Your task to perform on an android device: check battery use Image 0: 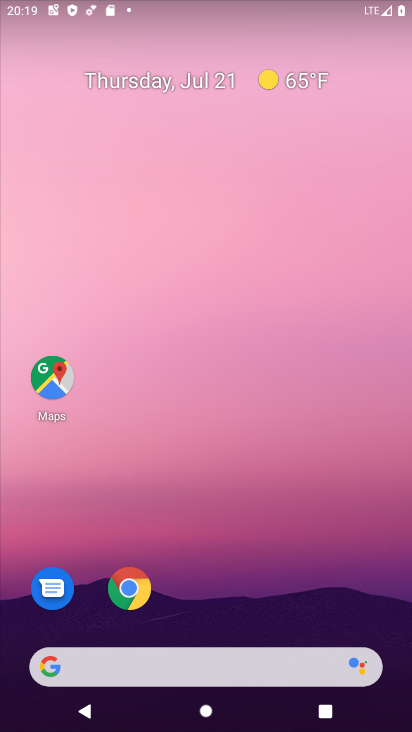
Step 0: drag from (257, 616) to (174, 86)
Your task to perform on an android device: check battery use Image 1: 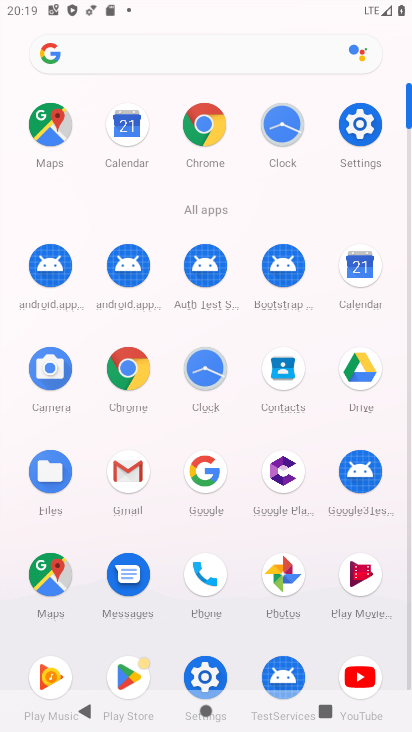
Step 1: click (360, 129)
Your task to perform on an android device: check battery use Image 2: 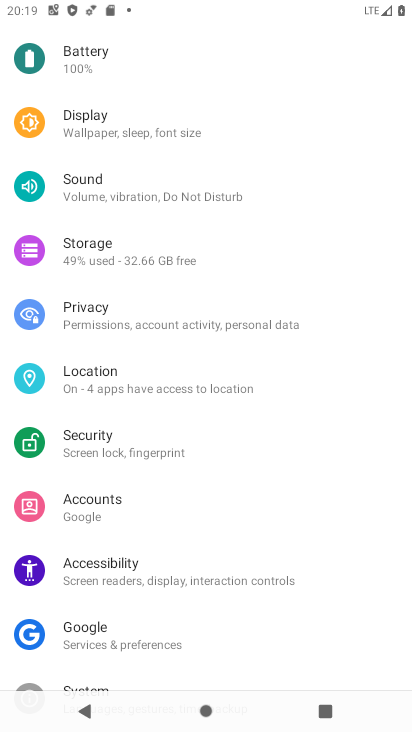
Step 2: click (89, 58)
Your task to perform on an android device: check battery use Image 3: 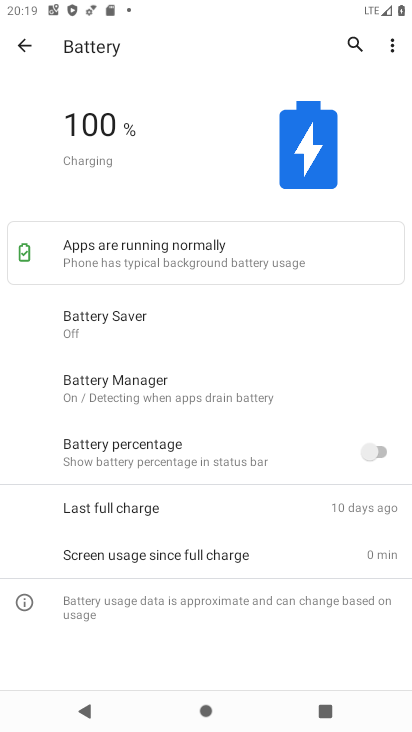
Step 3: task complete